Your task to perform on an android device: Add "bose quietcomfort 35" to the cart on costco, then select checkout. Image 0: 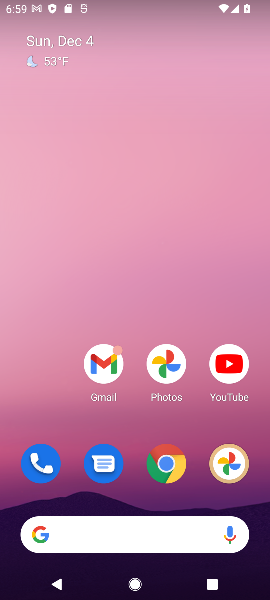
Step 0: click (99, 543)
Your task to perform on an android device: Add "bose quietcomfort 35" to the cart on costco, then select checkout. Image 1: 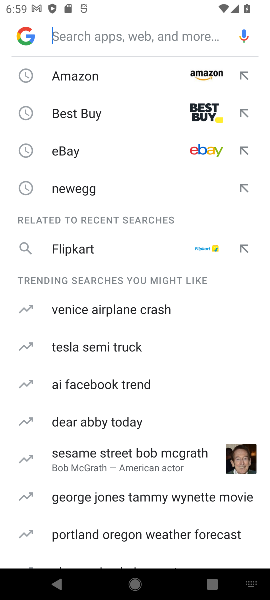
Step 1: type "costco.com"
Your task to perform on an android device: Add "bose quietcomfort 35" to the cart on costco, then select checkout. Image 2: 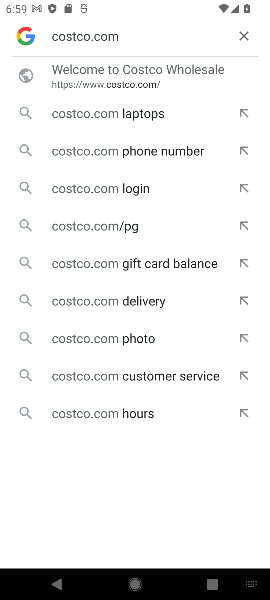
Step 2: click (200, 76)
Your task to perform on an android device: Add "bose quietcomfort 35" to the cart on costco, then select checkout. Image 3: 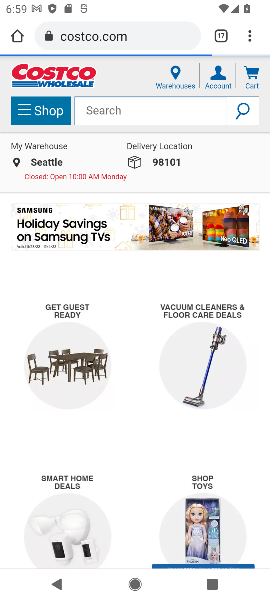
Step 3: click (164, 107)
Your task to perform on an android device: Add "bose quietcomfort 35" to the cart on costco, then select checkout. Image 4: 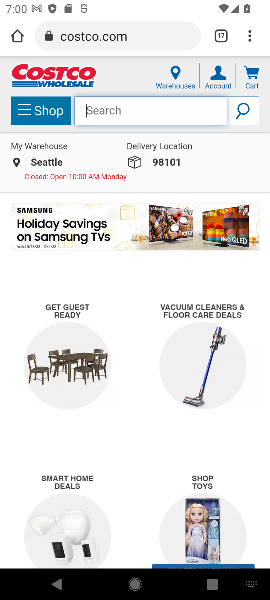
Step 4: type "bose quietcomfort 35"
Your task to perform on an android device: Add "bose quietcomfort 35" to the cart on costco, then select checkout. Image 5: 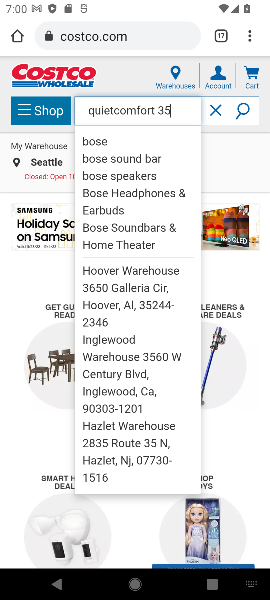
Step 5: click (244, 112)
Your task to perform on an android device: Add "bose quietcomfort 35" to the cart on costco, then select checkout. Image 6: 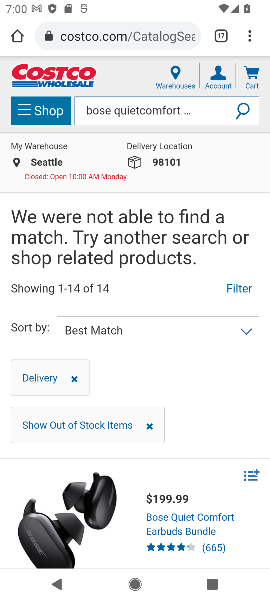
Step 6: click (166, 517)
Your task to perform on an android device: Add "bose quietcomfort 35" to the cart on costco, then select checkout. Image 7: 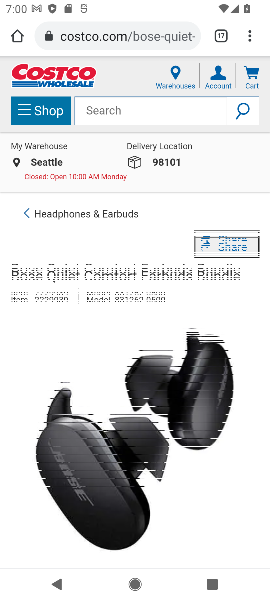
Step 7: drag from (166, 517) to (156, 239)
Your task to perform on an android device: Add "bose quietcomfort 35" to the cart on costco, then select checkout. Image 8: 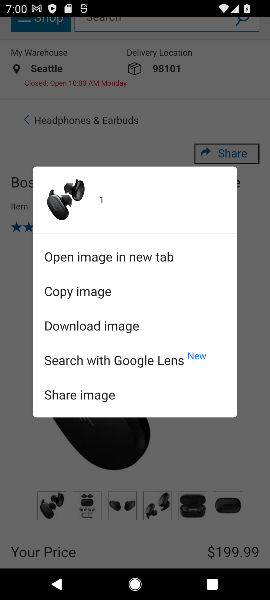
Step 8: click (249, 329)
Your task to perform on an android device: Add "bose quietcomfort 35" to the cart on costco, then select checkout. Image 9: 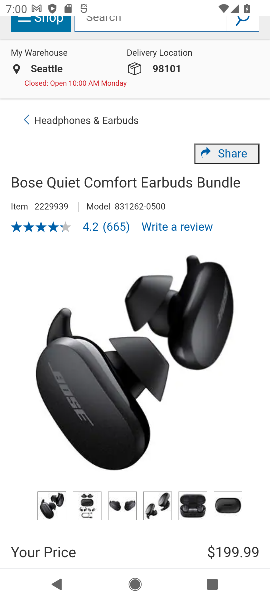
Step 9: drag from (233, 424) to (226, 208)
Your task to perform on an android device: Add "bose quietcomfort 35" to the cart on costco, then select checkout. Image 10: 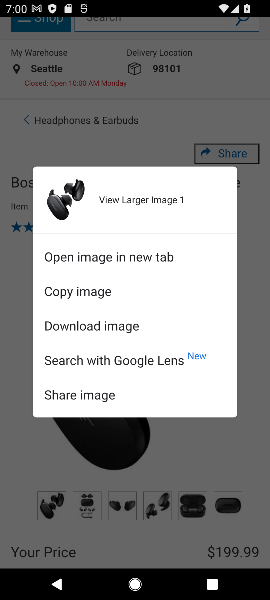
Step 10: click (255, 449)
Your task to perform on an android device: Add "bose quietcomfort 35" to the cart on costco, then select checkout. Image 11: 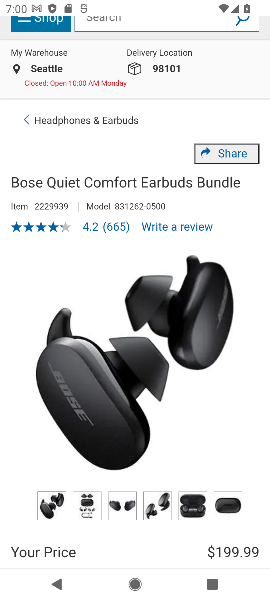
Step 11: drag from (185, 477) to (173, 227)
Your task to perform on an android device: Add "bose quietcomfort 35" to the cart on costco, then select checkout. Image 12: 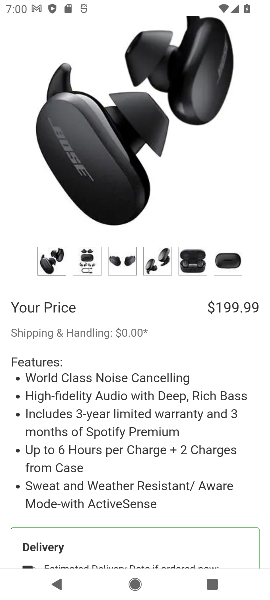
Step 12: drag from (237, 486) to (207, 268)
Your task to perform on an android device: Add "bose quietcomfort 35" to the cart on costco, then select checkout. Image 13: 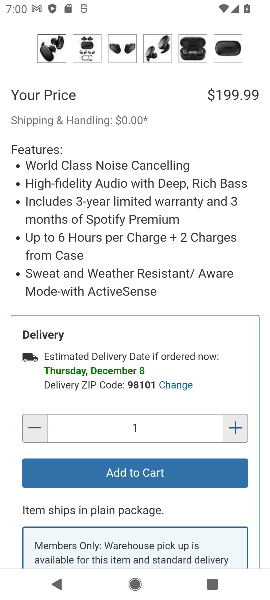
Step 13: click (184, 478)
Your task to perform on an android device: Add "bose quietcomfort 35" to the cart on costco, then select checkout. Image 14: 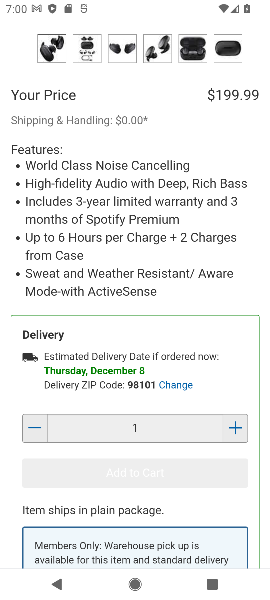
Step 14: task complete